Your task to perform on an android device: change text size in settings app Image 0: 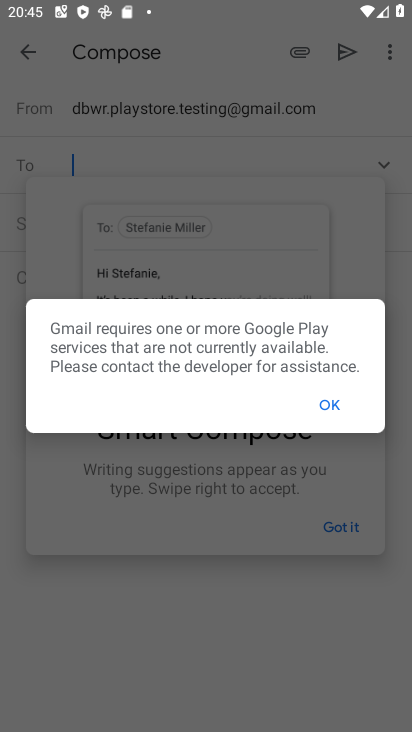
Step 0: press home button
Your task to perform on an android device: change text size in settings app Image 1: 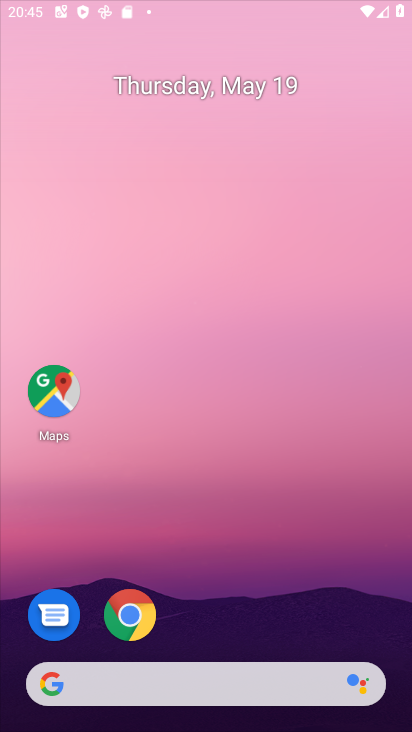
Step 1: drag from (197, 504) to (221, 45)
Your task to perform on an android device: change text size in settings app Image 2: 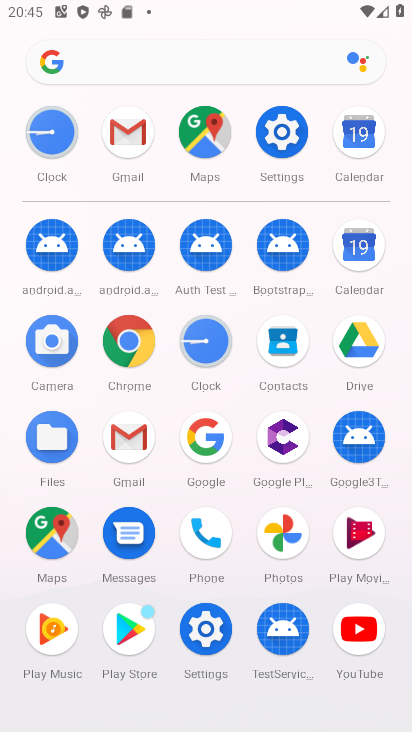
Step 2: click (286, 137)
Your task to perform on an android device: change text size in settings app Image 3: 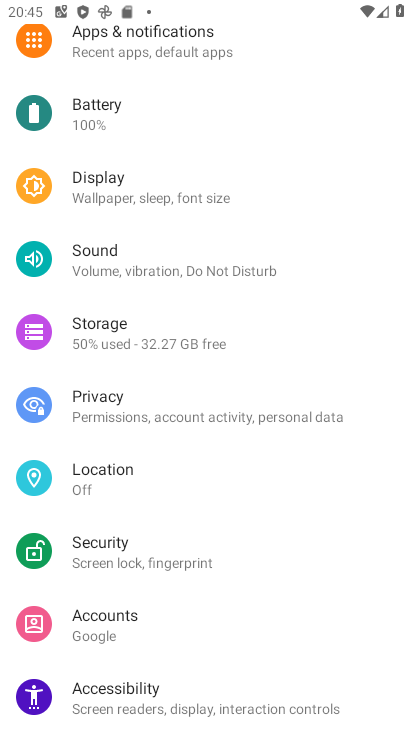
Step 3: click (163, 192)
Your task to perform on an android device: change text size in settings app Image 4: 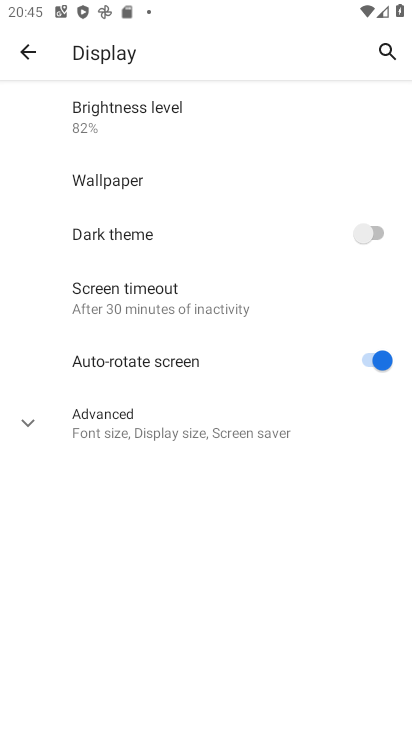
Step 4: click (108, 418)
Your task to perform on an android device: change text size in settings app Image 5: 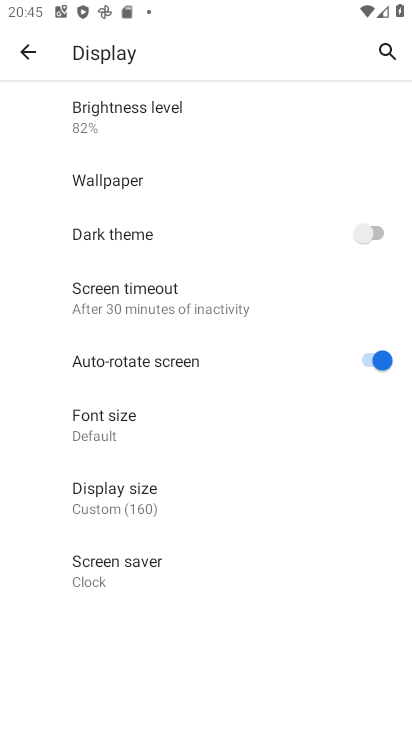
Step 5: click (93, 433)
Your task to perform on an android device: change text size in settings app Image 6: 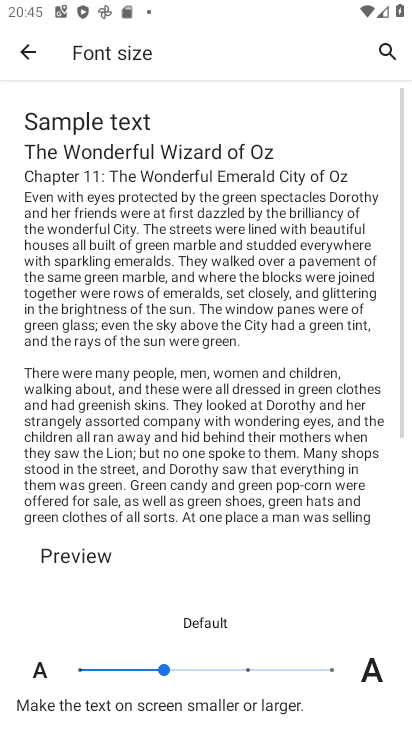
Step 6: task complete